Your task to perform on an android device: What's on my calendar today? Image 0: 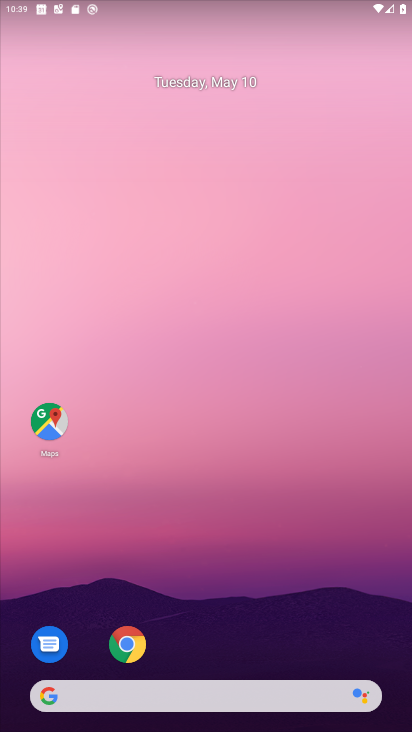
Step 0: drag from (307, 606) to (334, 112)
Your task to perform on an android device: What's on my calendar today? Image 1: 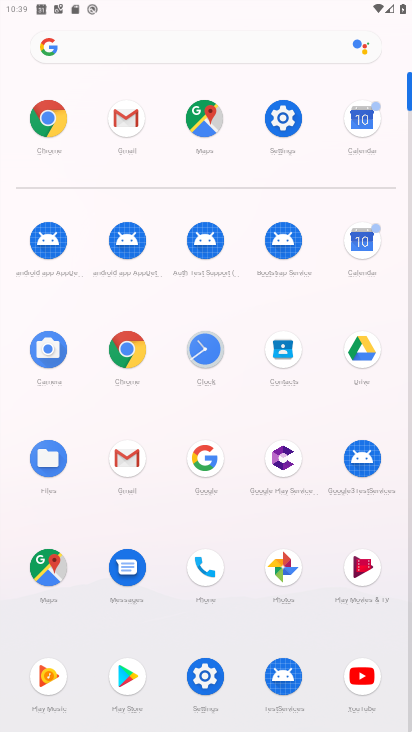
Step 1: click (377, 244)
Your task to perform on an android device: What's on my calendar today? Image 2: 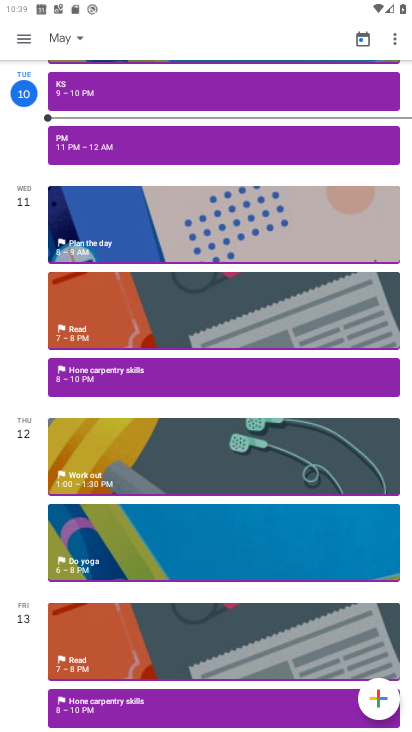
Step 2: task complete